Your task to perform on an android device: What's the weather going to be this weekend? Image 0: 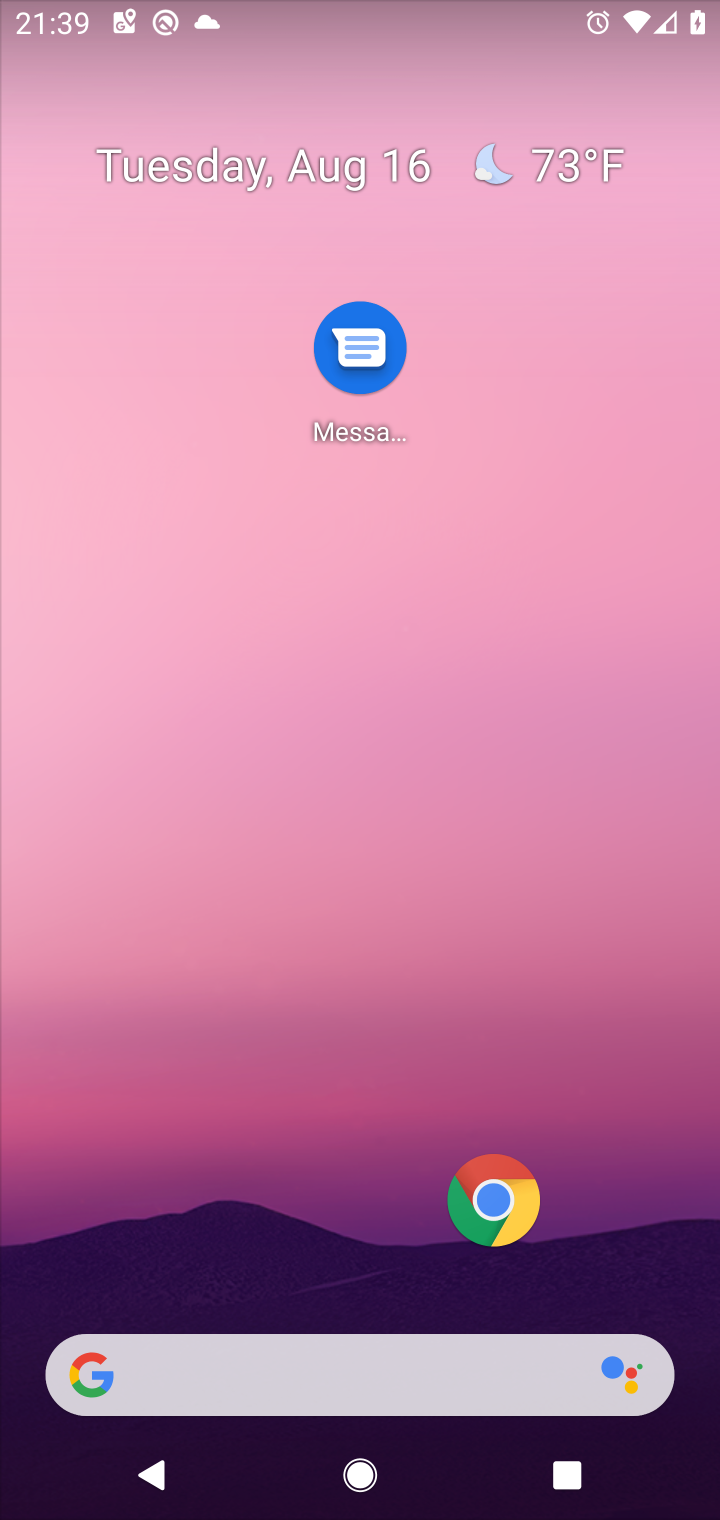
Step 0: click (180, 1372)
Your task to perform on an android device: What's the weather going to be this weekend? Image 1: 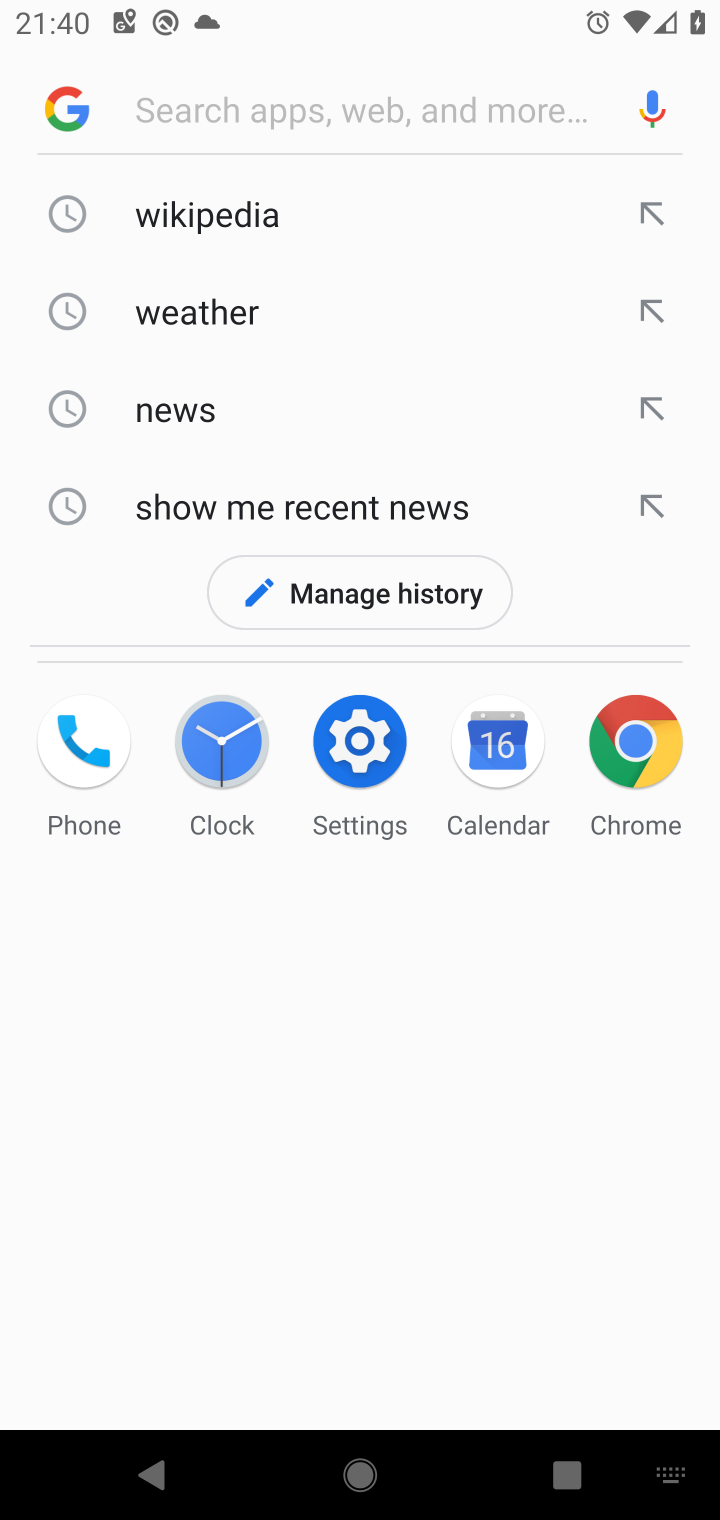
Step 1: type "What's the weather going to be this weekend?"
Your task to perform on an android device: What's the weather going to be this weekend? Image 2: 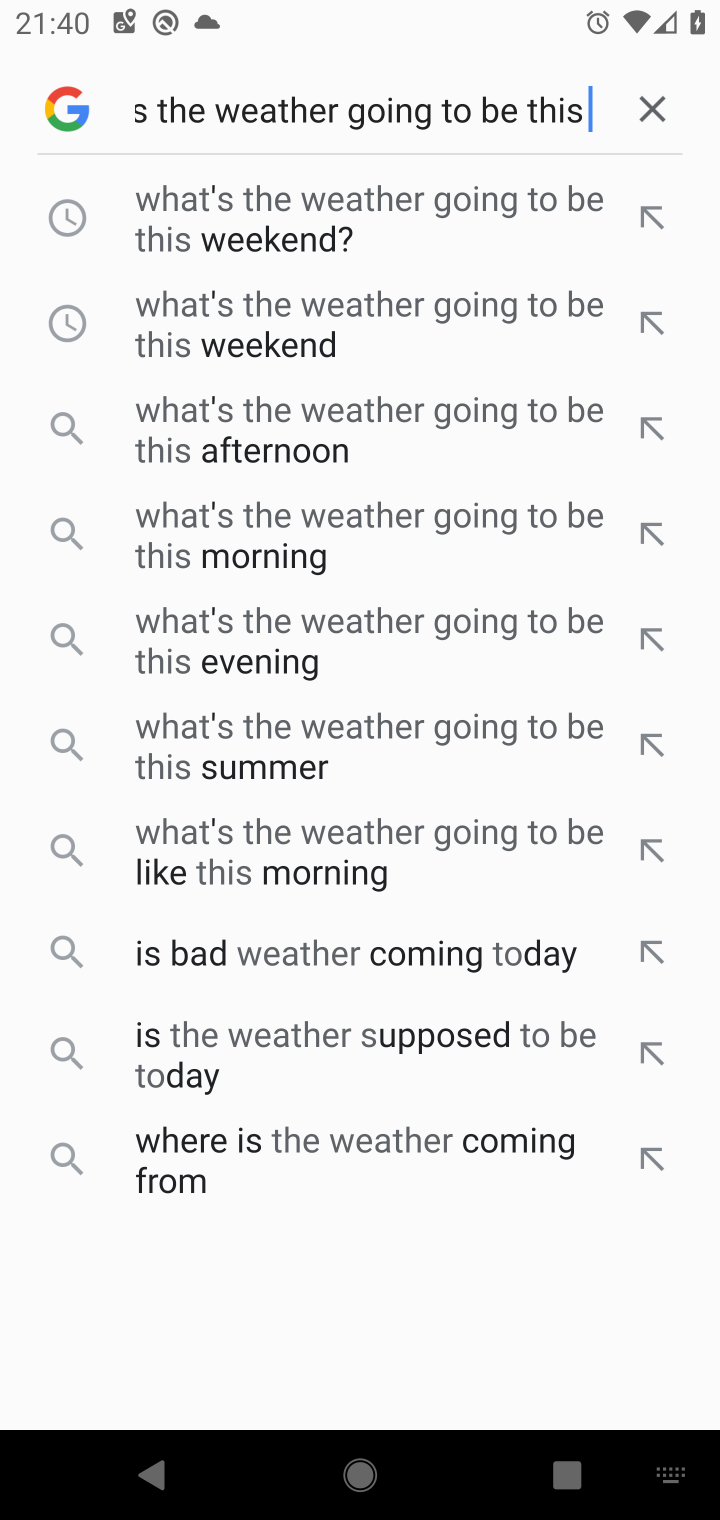
Step 2: click (239, 233)
Your task to perform on an android device: What's the weather going to be this weekend? Image 3: 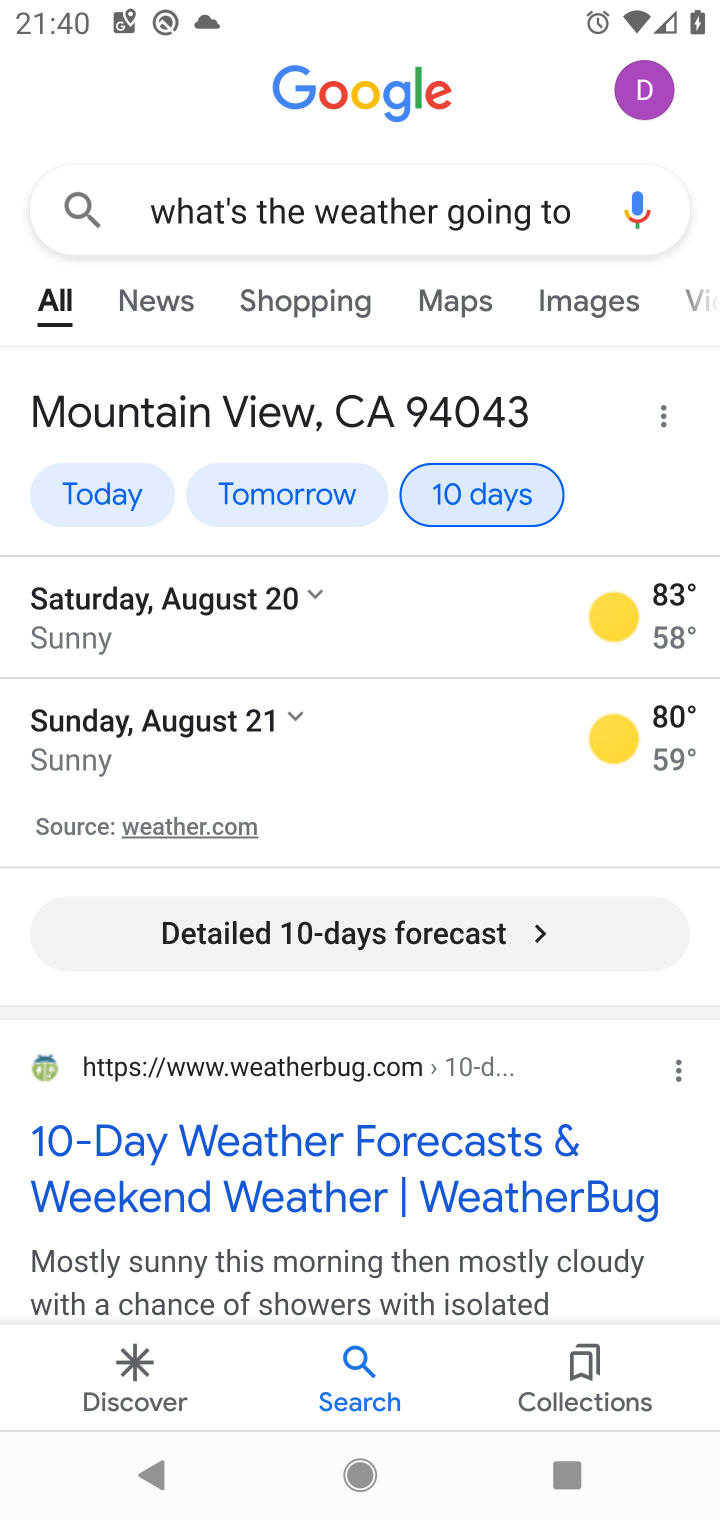
Step 3: task complete